Your task to perform on an android device: Check the news Image 0: 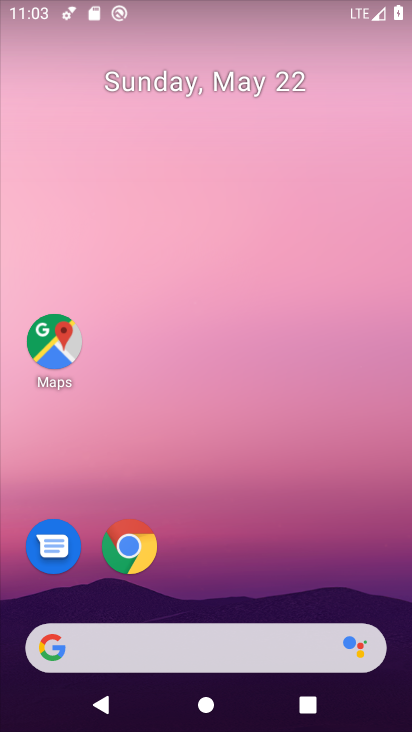
Step 0: drag from (227, 651) to (209, 95)
Your task to perform on an android device: Check the news Image 1: 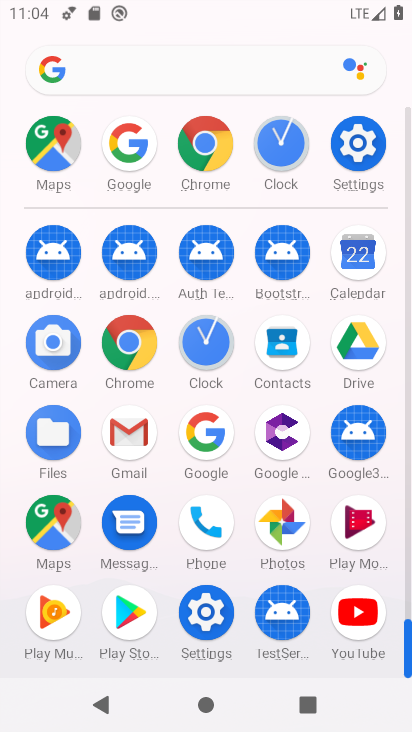
Step 1: click (217, 441)
Your task to perform on an android device: Check the news Image 2: 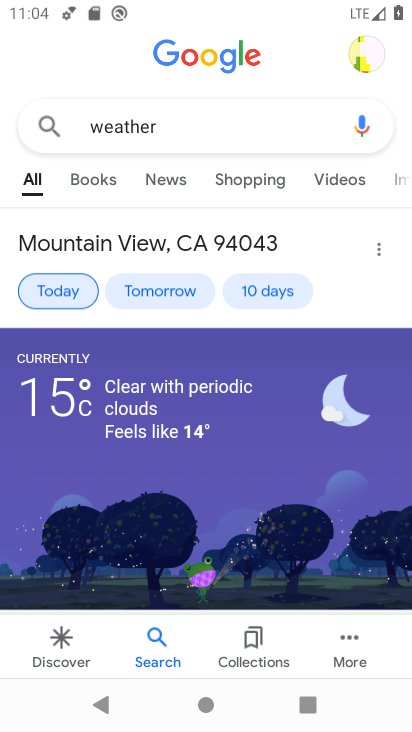
Step 2: click (247, 114)
Your task to perform on an android device: Check the news Image 3: 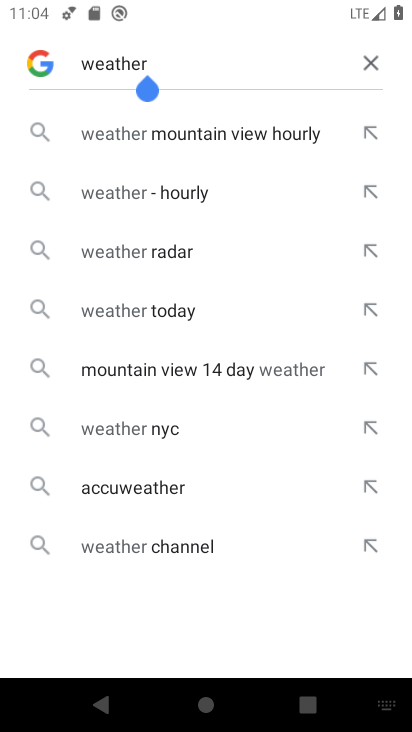
Step 3: click (363, 64)
Your task to perform on an android device: Check the news Image 4: 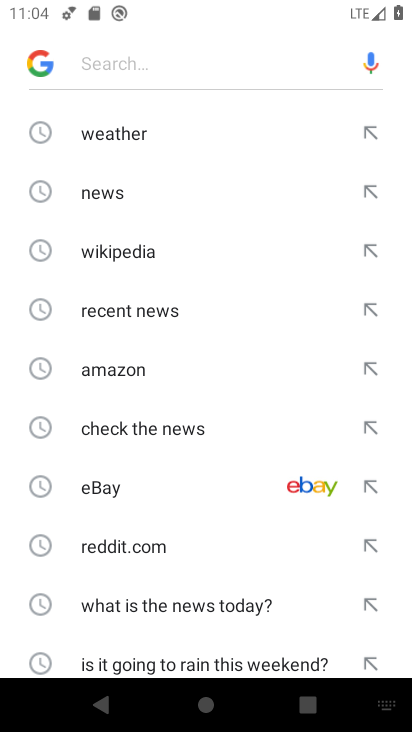
Step 4: click (128, 189)
Your task to perform on an android device: Check the news Image 5: 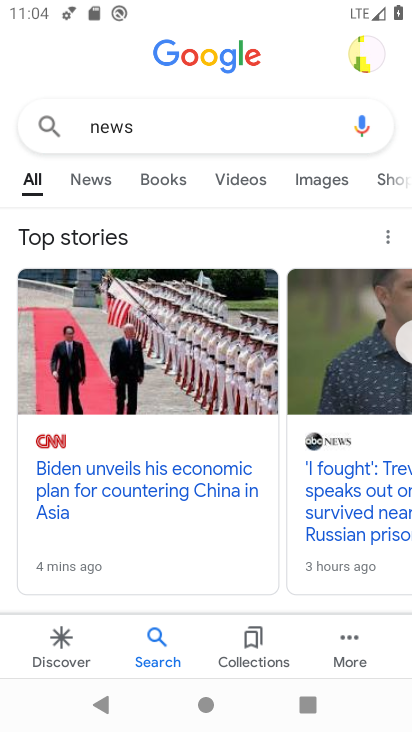
Step 5: click (93, 182)
Your task to perform on an android device: Check the news Image 6: 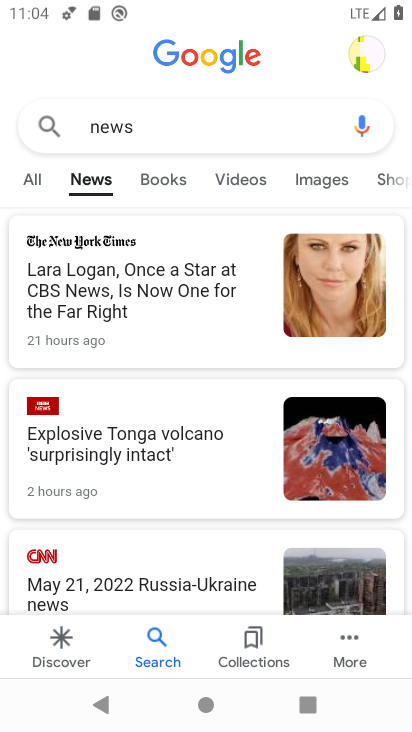
Step 6: task complete